Your task to perform on an android device: remove spam from my inbox in the gmail app Image 0: 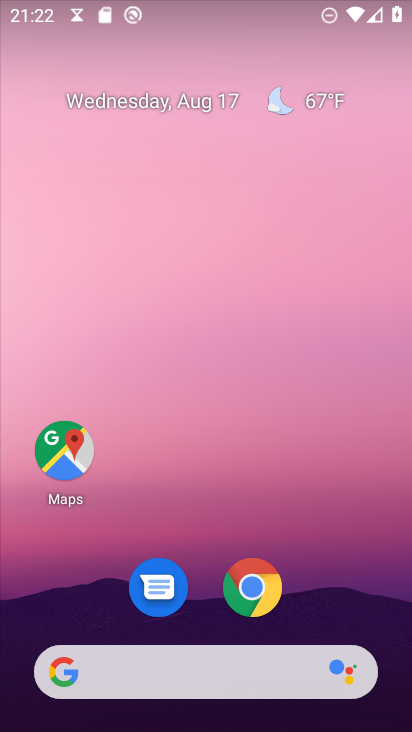
Step 0: drag from (78, 647) to (352, 92)
Your task to perform on an android device: remove spam from my inbox in the gmail app Image 1: 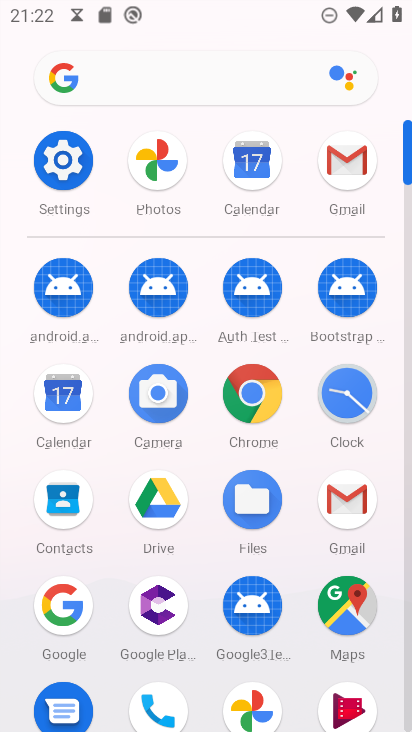
Step 1: click (345, 495)
Your task to perform on an android device: remove spam from my inbox in the gmail app Image 2: 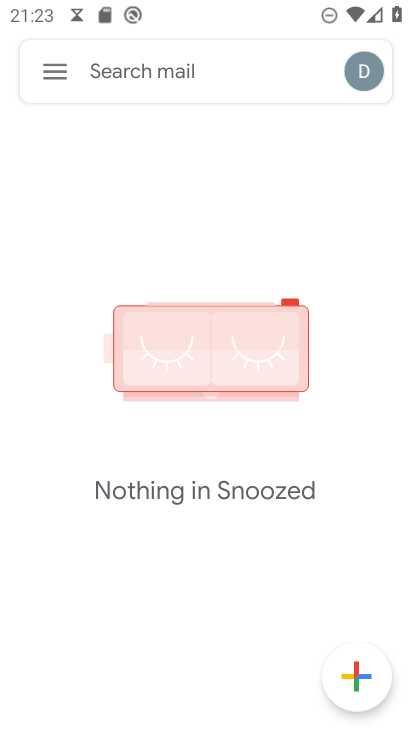
Step 2: click (56, 72)
Your task to perform on an android device: remove spam from my inbox in the gmail app Image 3: 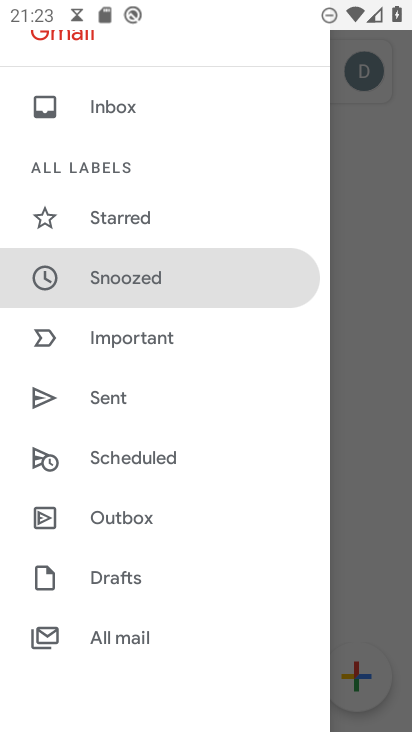
Step 3: drag from (215, 673) to (281, 265)
Your task to perform on an android device: remove spam from my inbox in the gmail app Image 4: 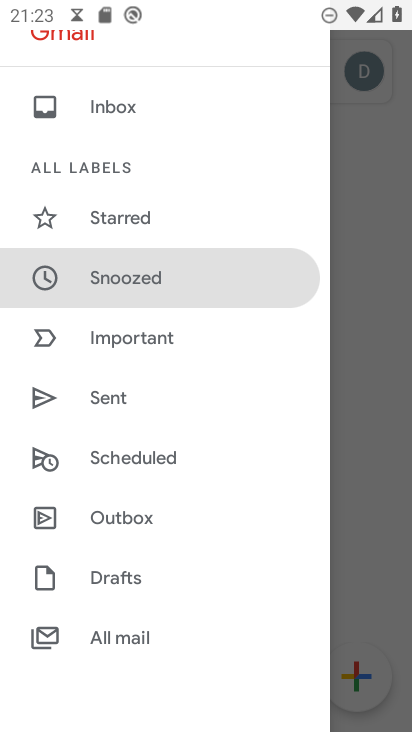
Step 4: drag from (234, 559) to (267, 269)
Your task to perform on an android device: remove spam from my inbox in the gmail app Image 5: 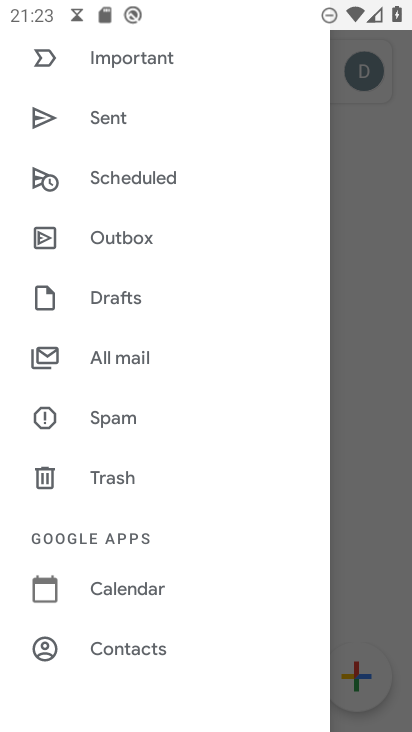
Step 5: click (113, 409)
Your task to perform on an android device: remove spam from my inbox in the gmail app Image 6: 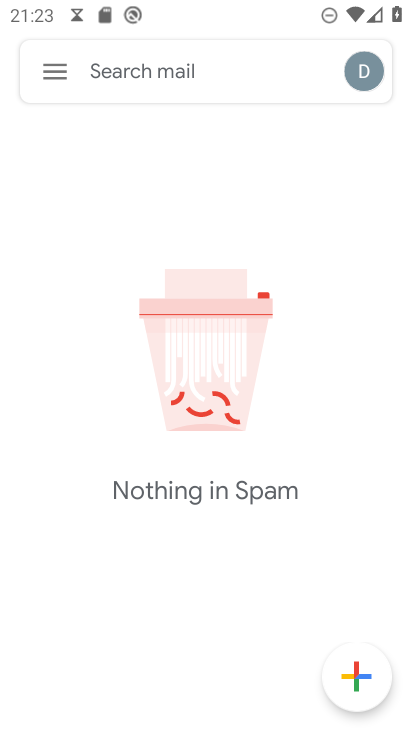
Step 6: task complete